Your task to perform on an android device: Go to network settings Image 0: 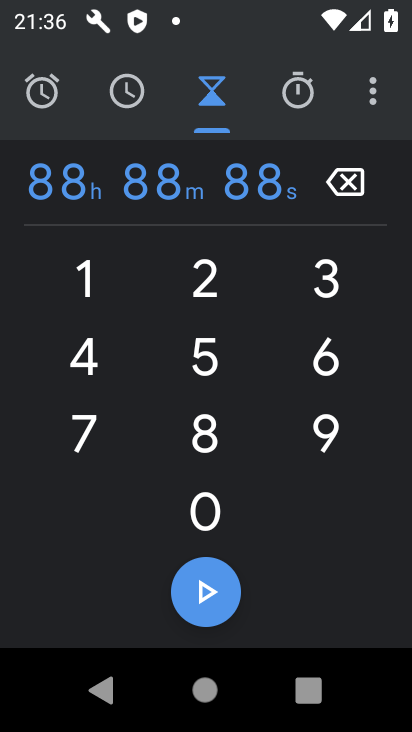
Step 0: press back button
Your task to perform on an android device: Go to network settings Image 1: 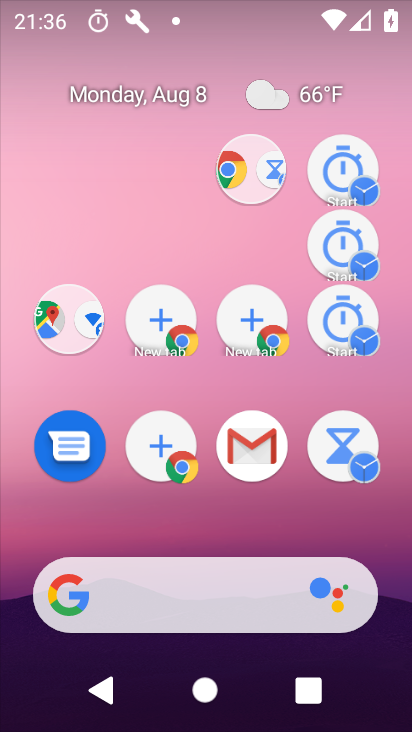
Step 1: click (233, 393)
Your task to perform on an android device: Go to network settings Image 2: 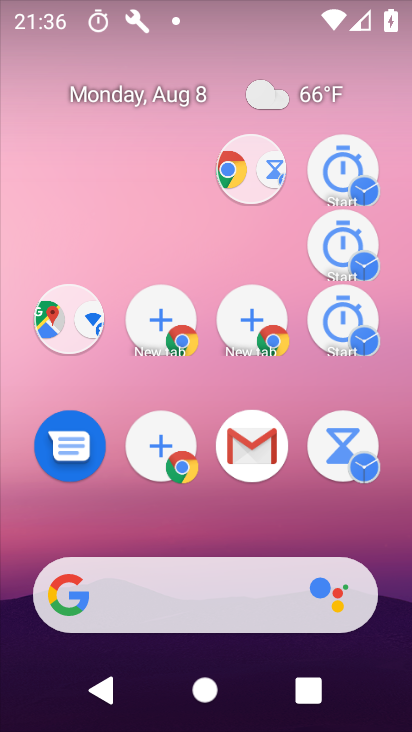
Step 2: drag from (252, 616) to (245, 440)
Your task to perform on an android device: Go to network settings Image 3: 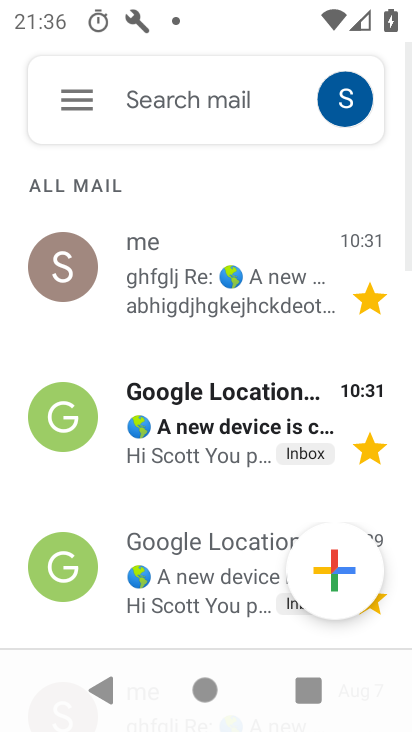
Step 3: press back button
Your task to perform on an android device: Go to network settings Image 4: 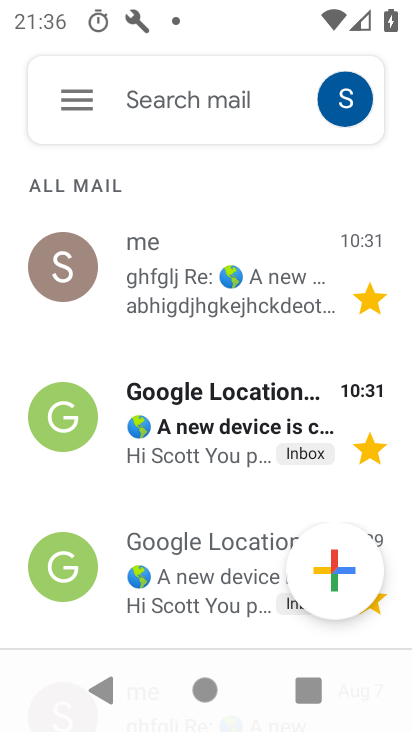
Step 4: press back button
Your task to perform on an android device: Go to network settings Image 5: 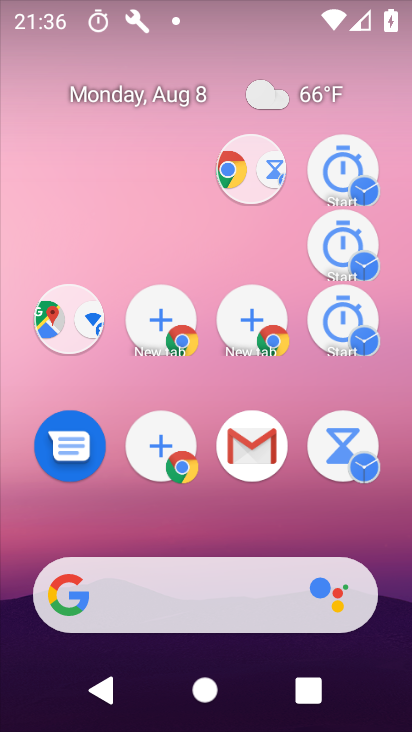
Step 5: drag from (222, 620) to (176, 218)
Your task to perform on an android device: Go to network settings Image 6: 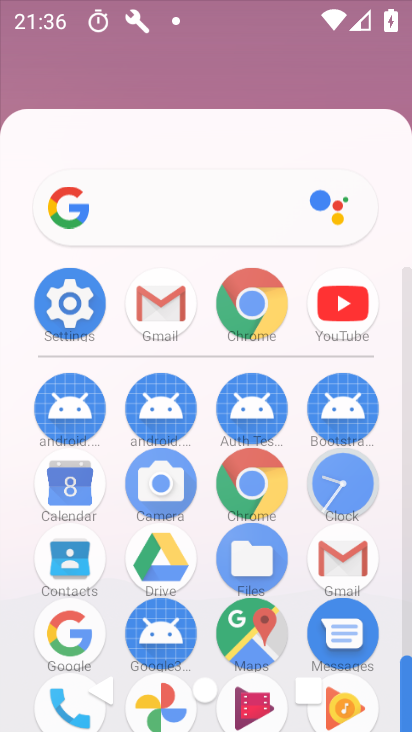
Step 6: drag from (188, 406) to (166, 250)
Your task to perform on an android device: Go to network settings Image 7: 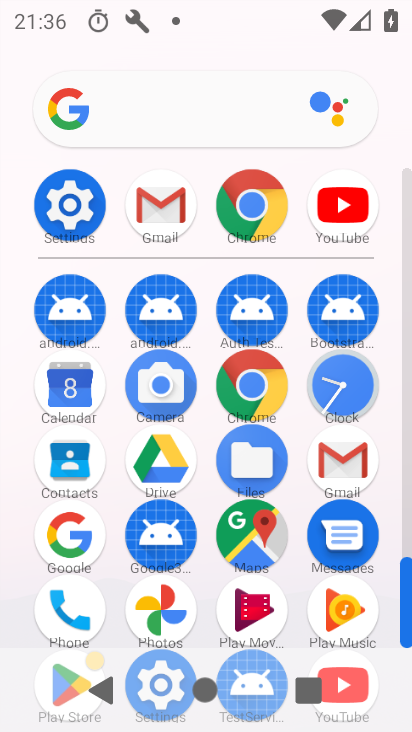
Step 7: click (70, 214)
Your task to perform on an android device: Go to network settings Image 8: 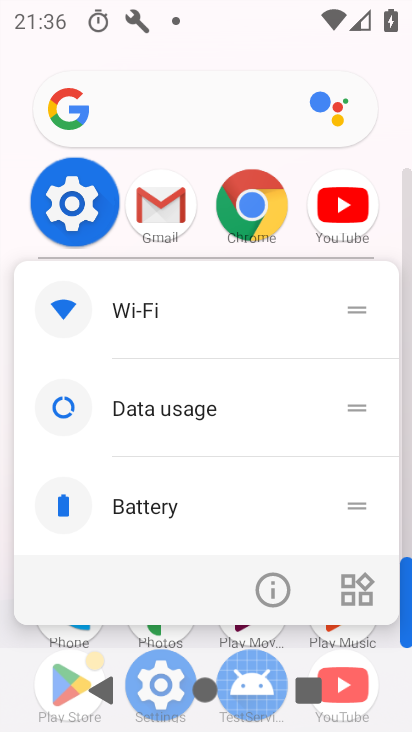
Step 8: click (78, 209)
Your task to perform on an android device: Go to network settings Image 9: 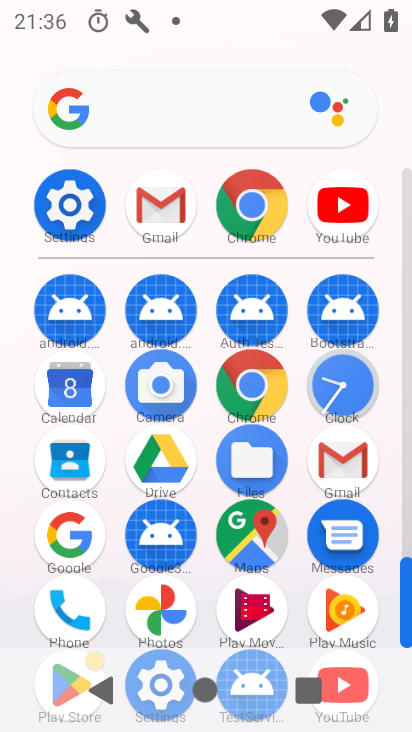
Step 9: click (84, 221)
Your task to perform on an android device: Go to network settings Image 10: 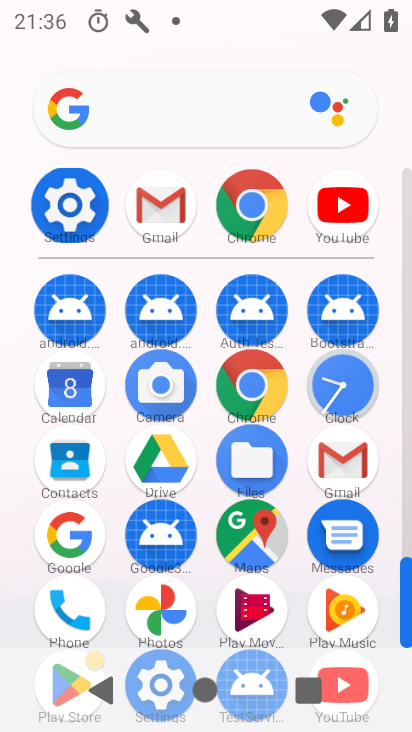
Step 10: click (85, 234)
Your task to perform on an android device: Go to network settings Image 11: 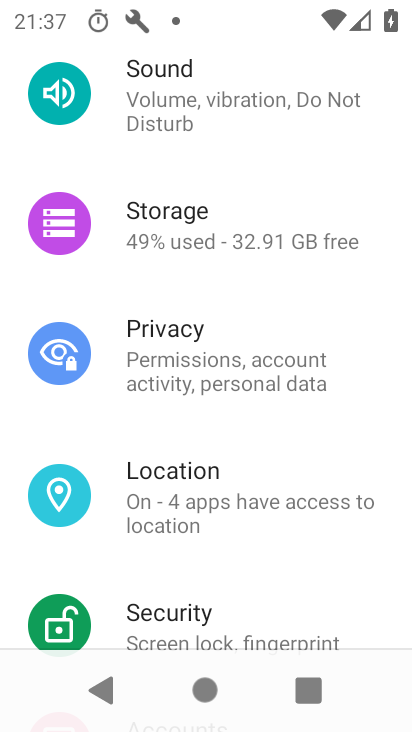
Step 11: drag from (183, 122) to (216, 550)
Your task to perform on an android device: Go to network settings Image 12: 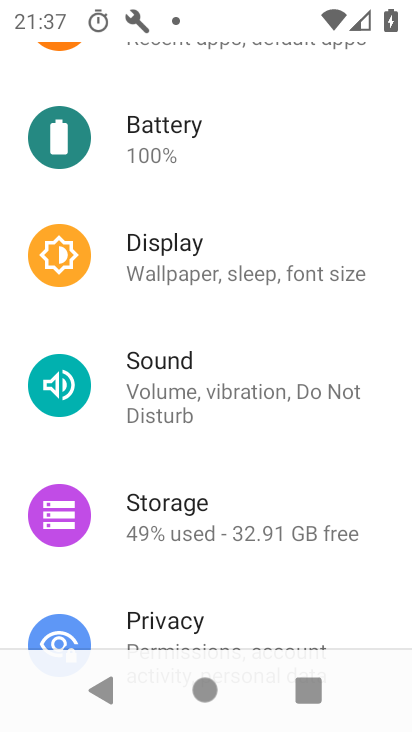
Step 12: drag from (243, 294) to (230, 599)
Your task to perform on an android device: Go to network settings Image 13: 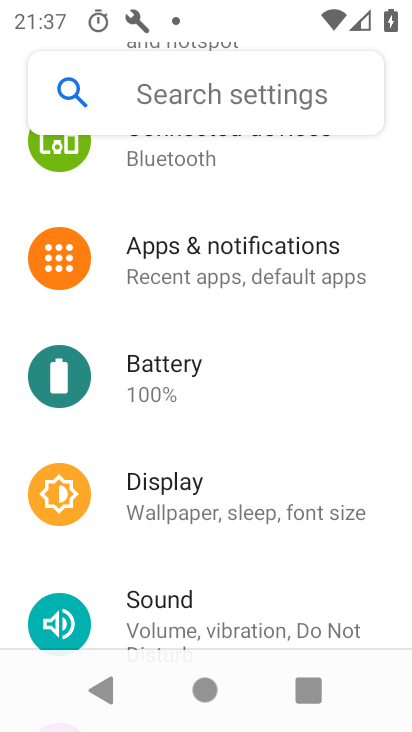
Step 13: drag from (196, 571) to (232, 634)
Your task to perform on an android device: Go to network settings Image 14: 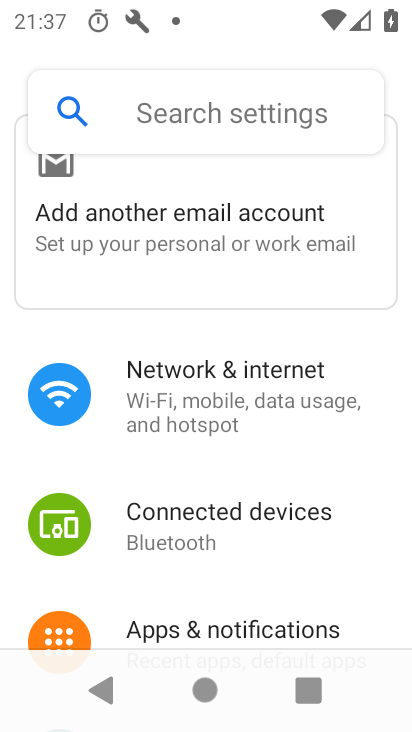
Step 14: drag from (215, 366) to (230, 608)
Your task to perform on an android device: Go to network settings Image 15: 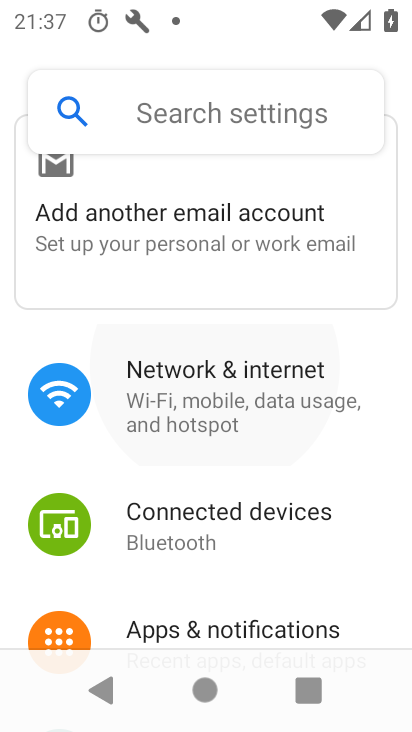
Step 15: drag from (260, 271) to (218, 605)
Your task to perform on an android device: Go to network settings Image 16: 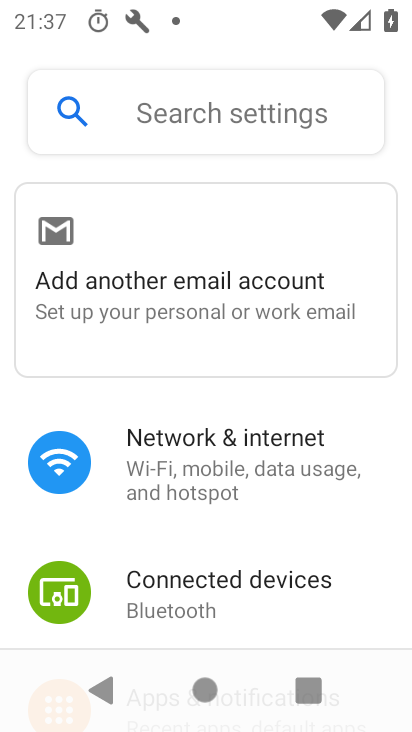
Step 16: click (203, 457)
Your task to perform on an android device: Go to network settings Image 17: 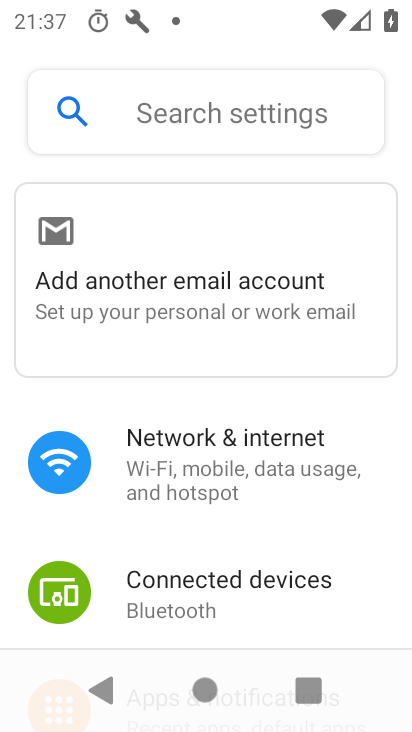
Step 17: click (203, 457)
Your task to perform on an android device: Go to network settings Image 18: 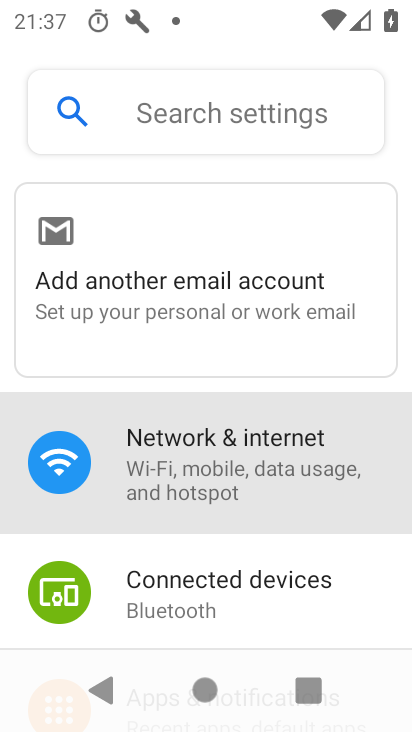
Step 18: click (207, 457)
Your task to perform on an android device: Go to network settings Image 19: 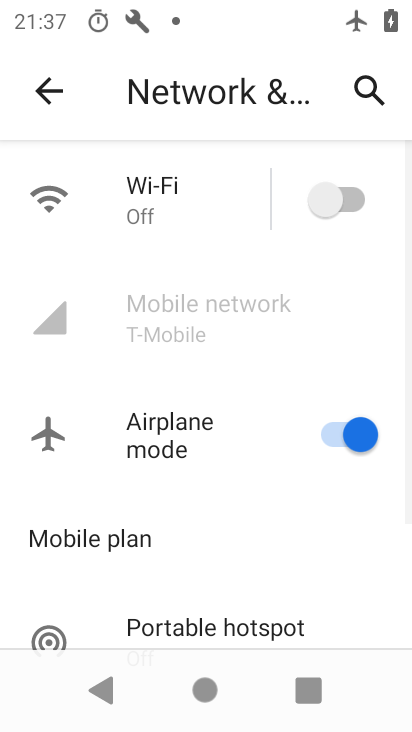
Step 19: click (355, 444)
Your task to perform on an android device: Go to network settings Image 20: 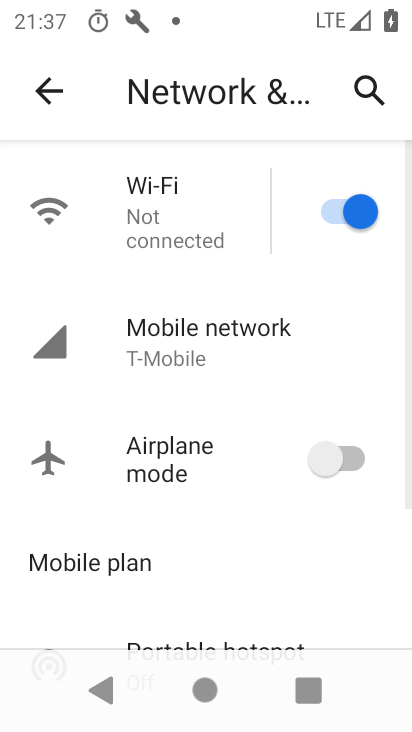
Step 20: task complete